Your task to perform on an android device: see tabs open on other devices in the chrome app Image 0: 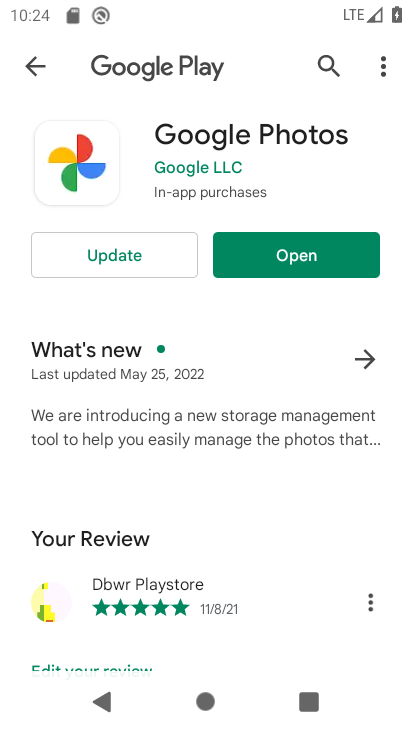
Step 0: press home button
Your task to perform on an android device: see tabs open on other devices in the chrome app Image 1: 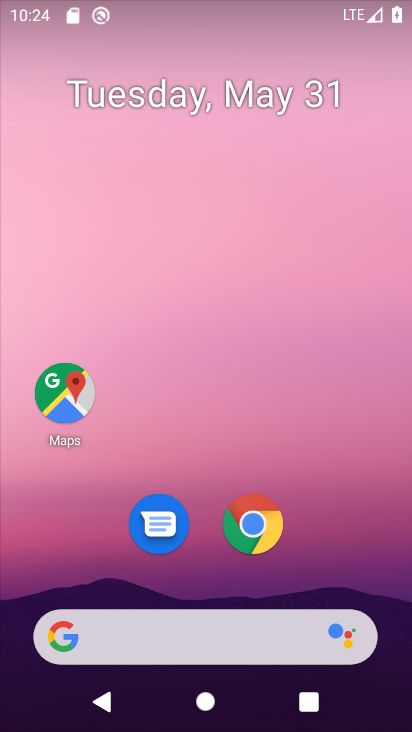
Step 1: click (256, 517)
Your task to perform on an android device: see tabs open on other devices in the chrome app Image 2: 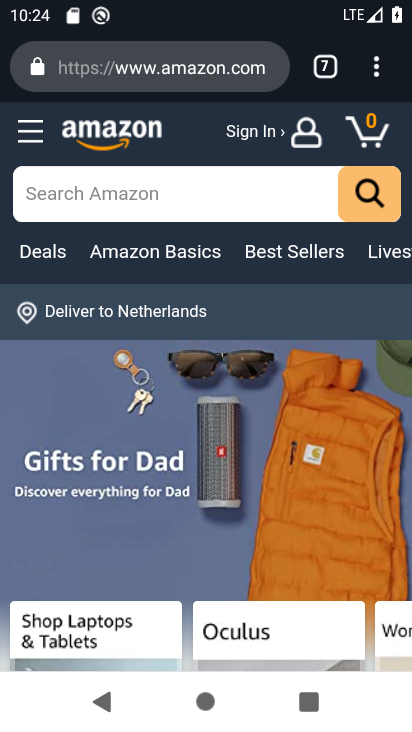
Step 2: click (375, 71)
Your task to perform on an android device: see tabs open on other devices in the chrome app Image 3: 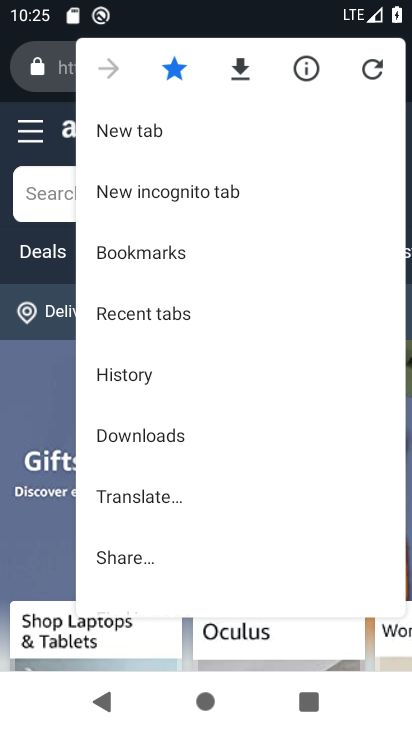
Step 3: click (179, 313)
Your task to perform on an android device: see tabs open on other devices in the chrome app Image 4: 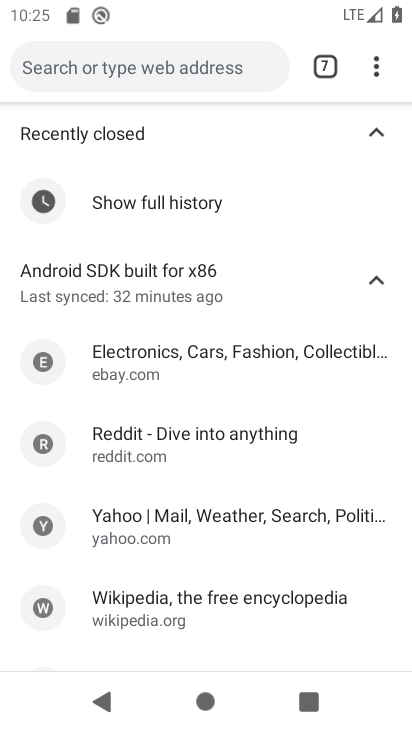
Step 4: task complete